Your task to perform on an android device: Add usb-c to usb-a to the cart on costco, then select checkout. Image 0: 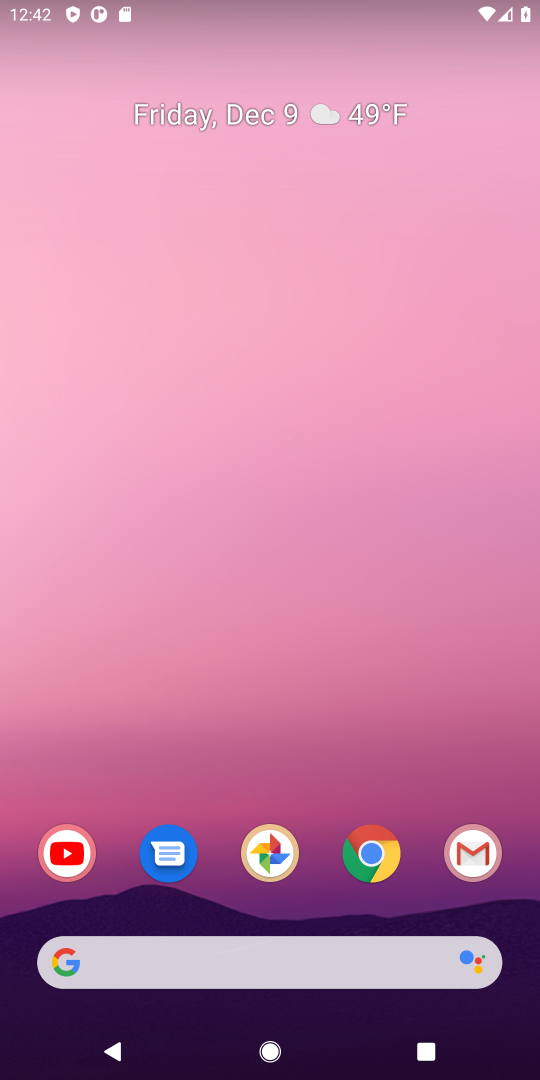
Step 0: drag from (250, 807) to (376, 105)
Your task to perform on an android device: Add usb-c to usb-a to the cart on costco, then select checkout. Image 1: 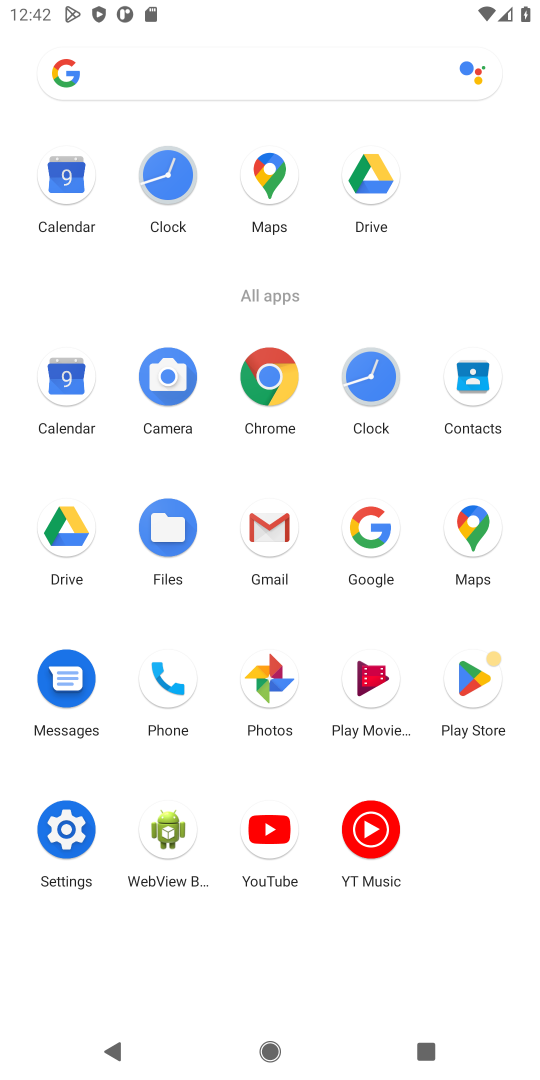
Step 1: click (372, 536)
Your task to perform on an android device: Add usb-c to usb-a to the cart on costco, then select checkout. Image 2: 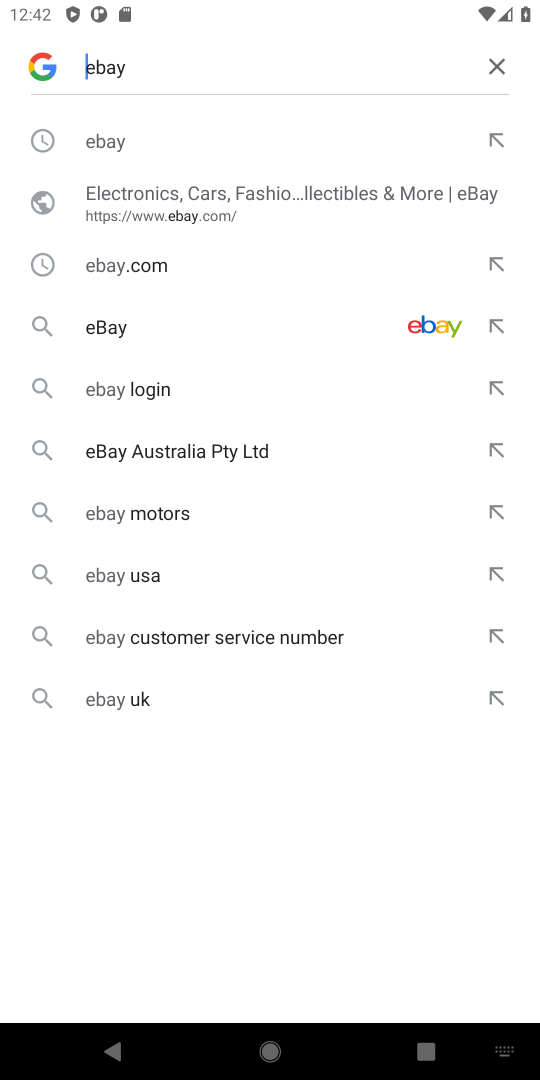
Step 2: click (499, 63)
Your task to perform on an android device: Add usb-c to usb-a to the cart on costco, then select checkout. Image 3: 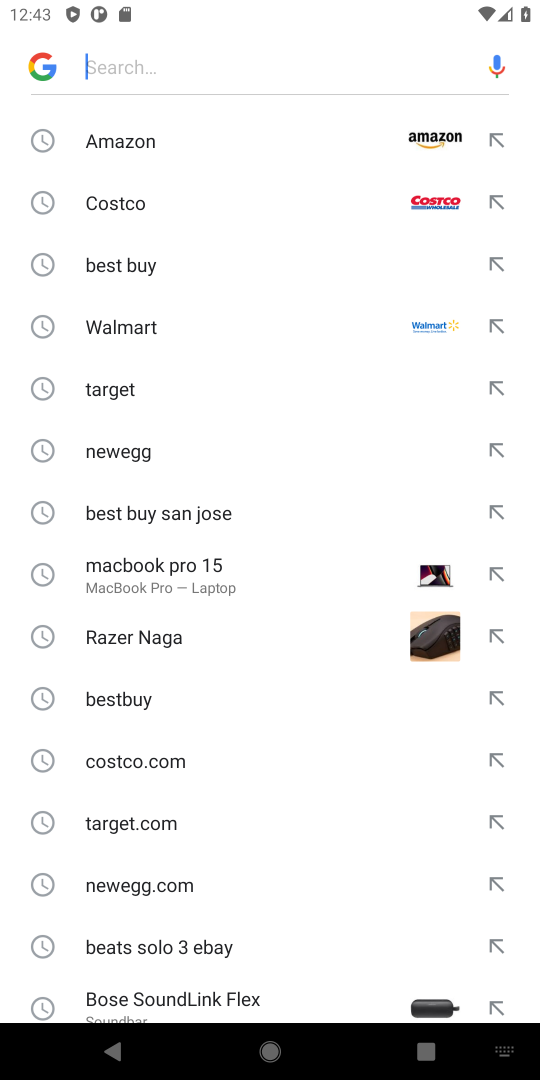
Step 3: click (111, 202)
Your task to perform on an android device: Add usb-c to usb-a to the cart on costco, then select checkout. Image 4: 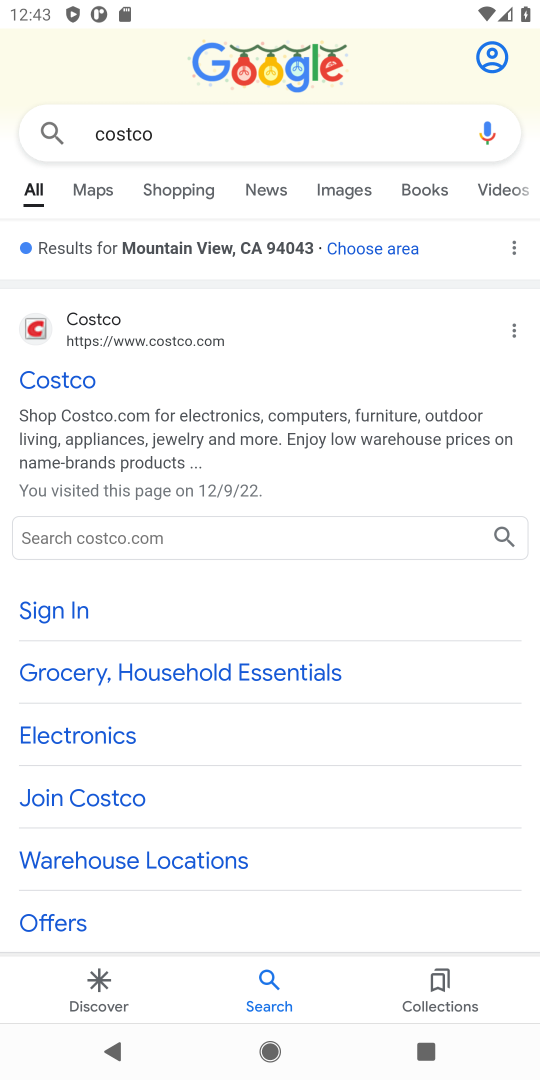
Step 4: click (51, 373)
Your task to perform on an android device: Add usb-c to usb-a to the cart on costco, then select checkout. Image 5: 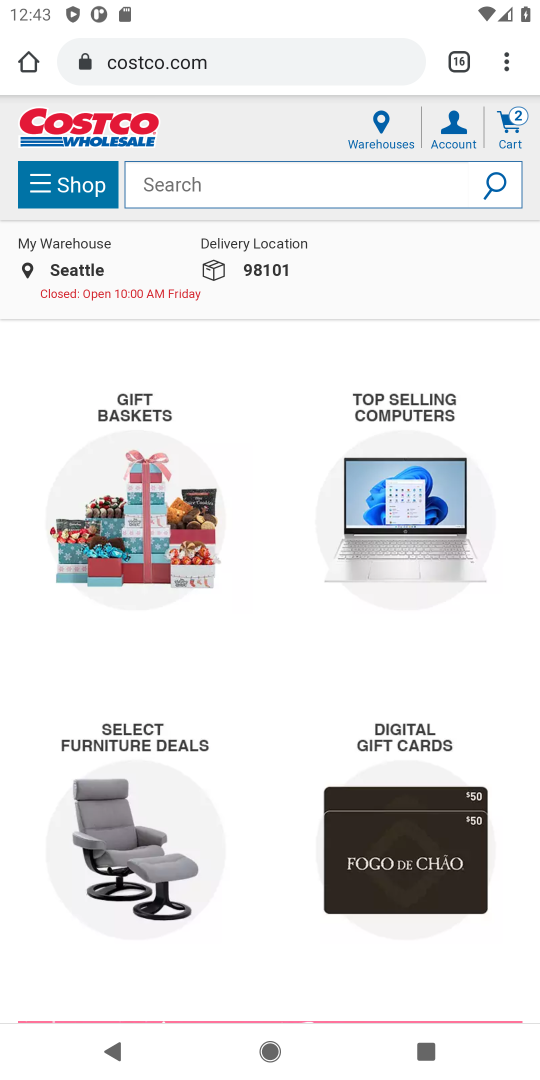
Step 5: click (191, 187)
Your task to perform on an android device: Add usb-c to usb-a to the cart on costco, then select checkout. Image 6: 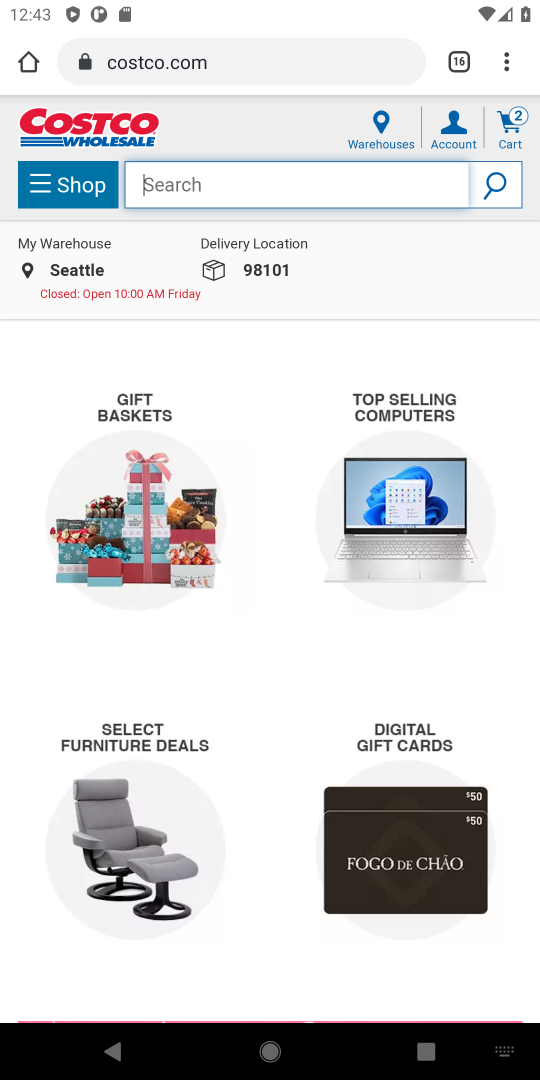
Step 6: type "usb-c to usb-a"
Your task to perform on an android device: Add usb-c to usb-a to the cart on costco, then select checkout. Image 7: 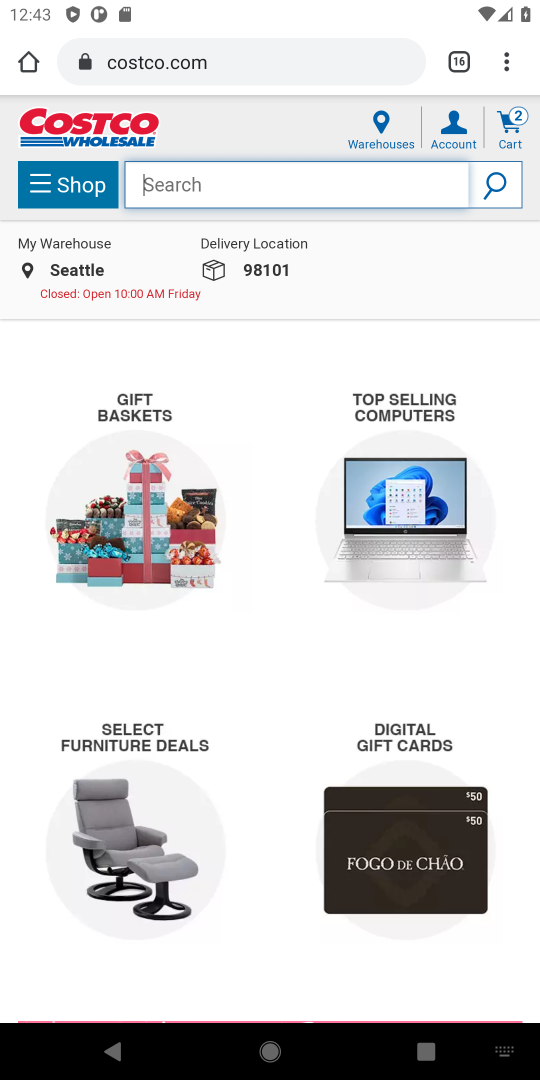
Step 7: click (504, 177)
Your task to perform on an android device: Add usb-c to usb-a to the cart on costco, then select checkout. Image 8: 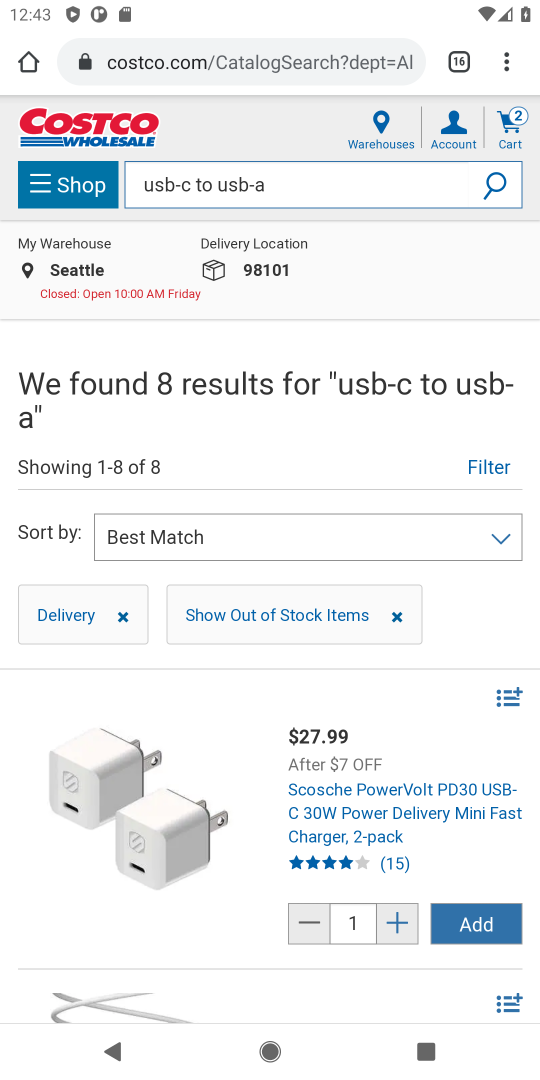
Step 8: drag from (211, 844) to (269, 465)
Your task to perform on an android device: Add usb-c to usb-a to the cart on costco, then select checkout. Image 9: 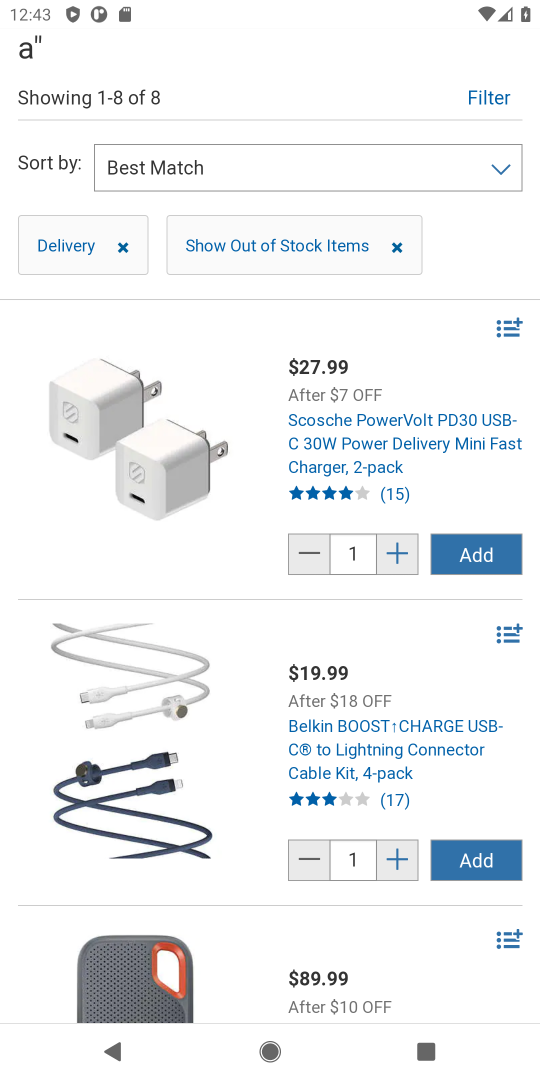
Step 9: click (479, 553)
Your task to perform on an android device: Add usb-c to usb-a to the cart on costco, then select checkout. Image 10: 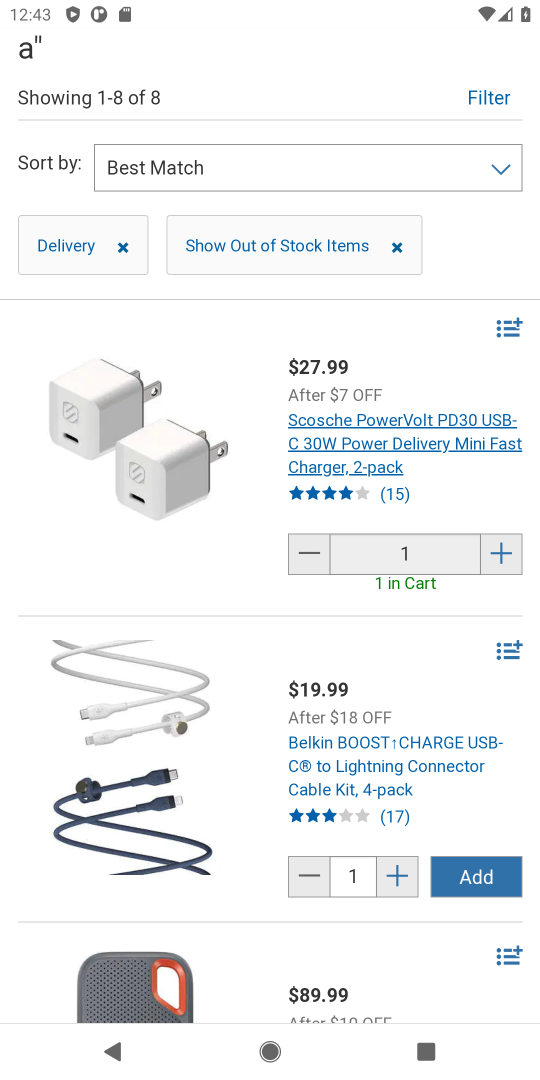
Step 10: drag from (441, 274) to (441, 812)
Your task to perform on an android device: Add usb-c to usb-a to the cart on costco, then select checkout. Image 11: 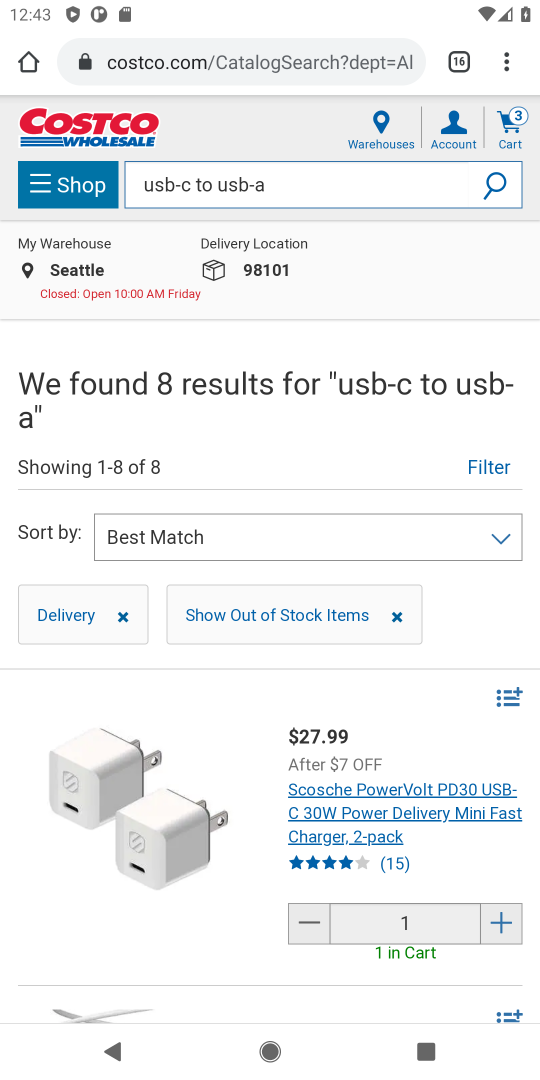
Step 11: click (504, 127)
Your task to perform on an android device: Add usb-c to usb-a to the cart on costco, then select checkout. Image 12: 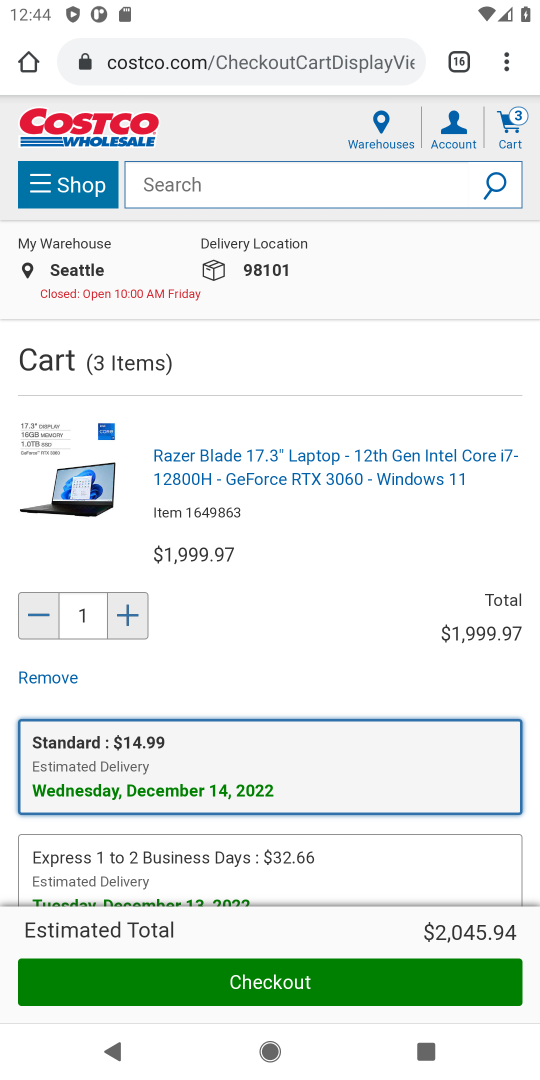
Step 12: click (294, 987)
Your task to perform on an android device: Add usb-c to usb-a to the cart on costco, then select checkout. Image 13: 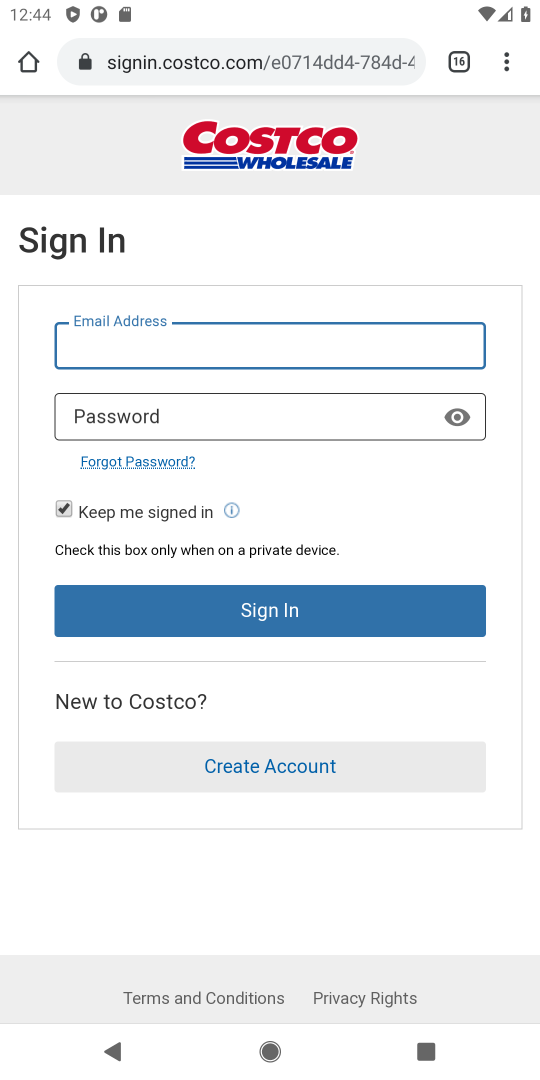
Step 13: task complete